Your task to perform on an android device: check storage Image 0: 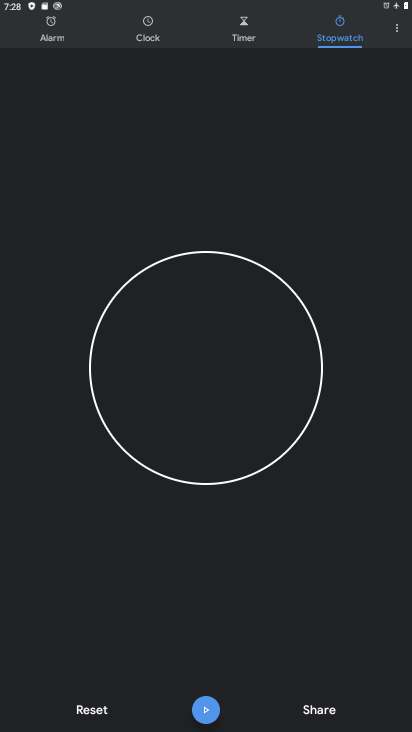
Step 0: press home button
Your task to perform on an android device: check storage Image 1: 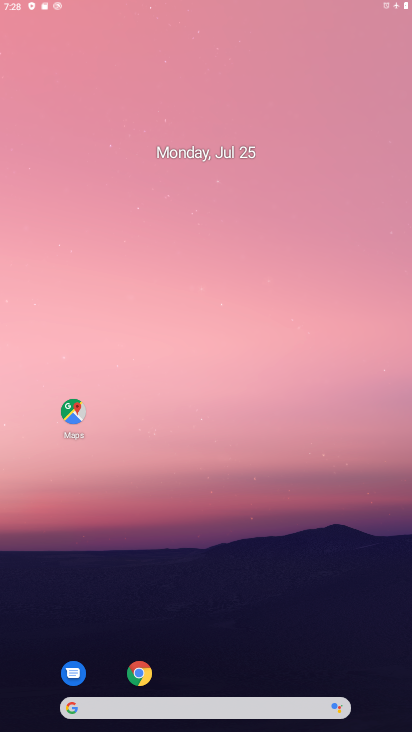
Step 1: drag from (398, 647) to (192, 11)
Your task to perform on an android device: check storage Image 2: 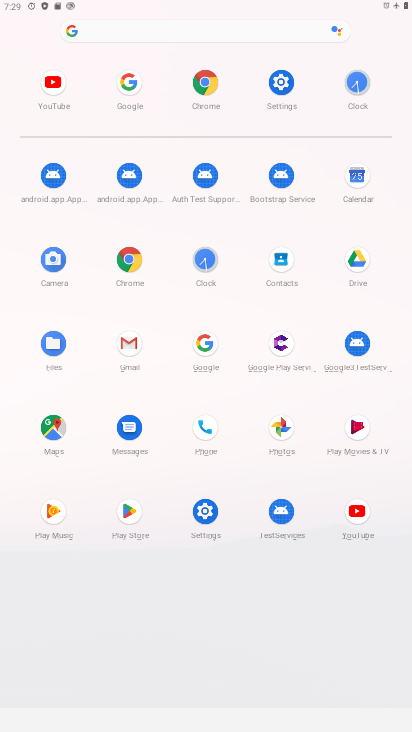
Step 2: click (213, 520)
Your task to perform on an android device: check storage Image 3: 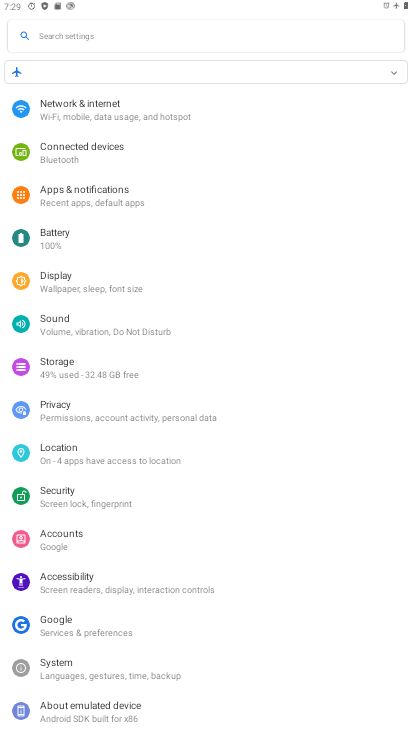
Step 3: click (69, 363)
Your task to perform on an android device: check storage Image 4: 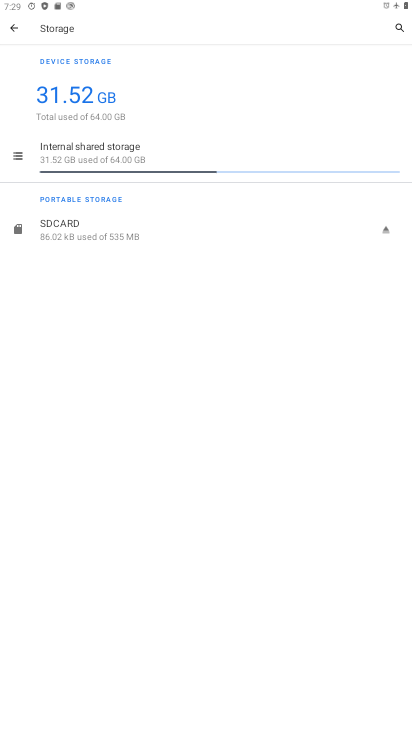
Step 4: click (98, 143)
Your task to perform on an android device: check storage Image 5: 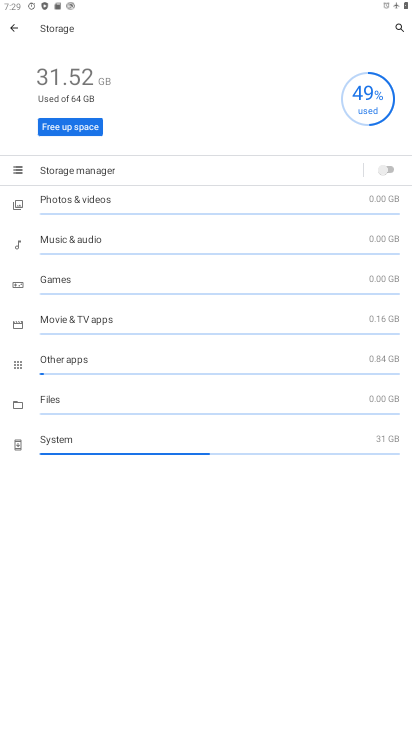
Step 5: task complete